Your task to perform on an android device: set default search engine in the chrome app Image 0: 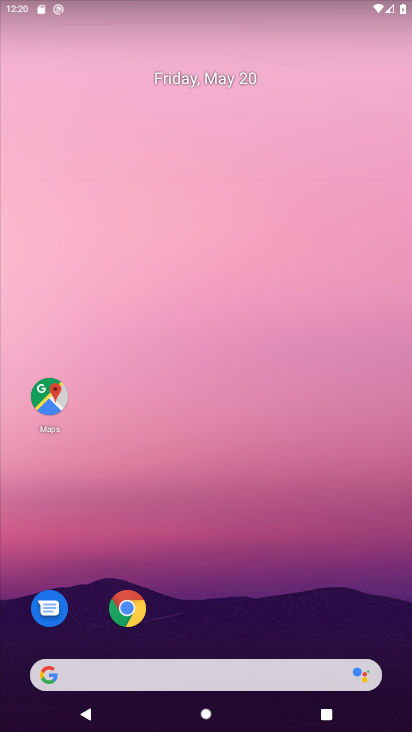
Step 0: press home button
Your task to perform on an android device: set default search engine in the chrome app Image 1: 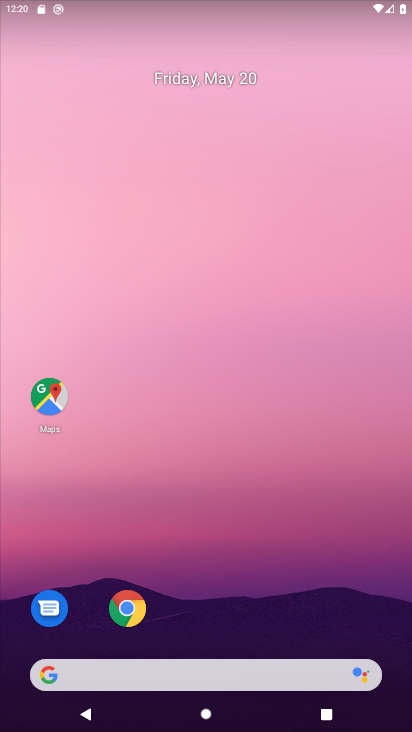
Step 1: click (111, 618)
Your task to perform on an android device: set default search engine in the chrome app Image 2: 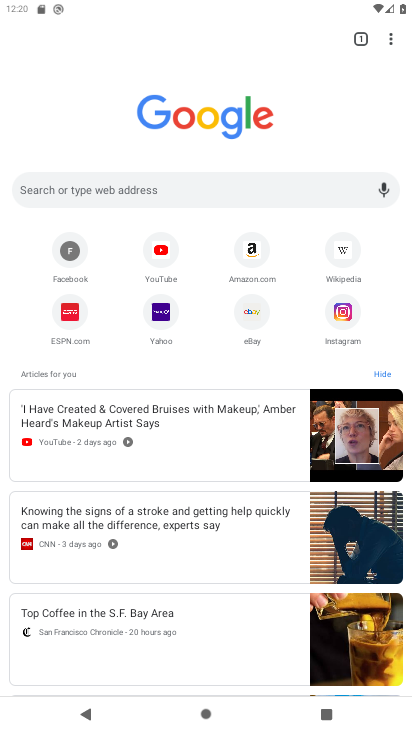
Step 2: drag from (377, 32) to (257, 324)
Your task to perform on an android device: set default search engine in the chrome app Image 3: 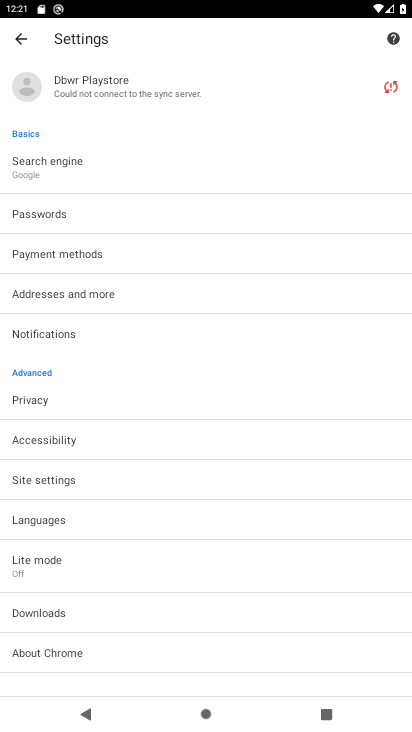
Step 3: click (39, 173)
Your task to perform on an android device: set default search engine in the chrome app Image 4: 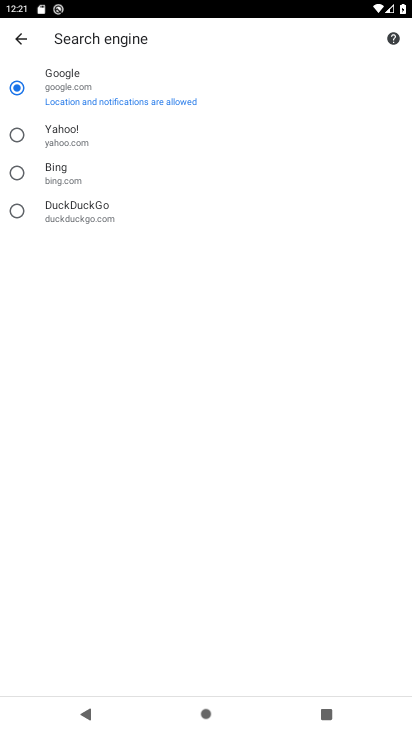
Step 4: task complete